Your task to perform on an android device: Go to settings Image 0: 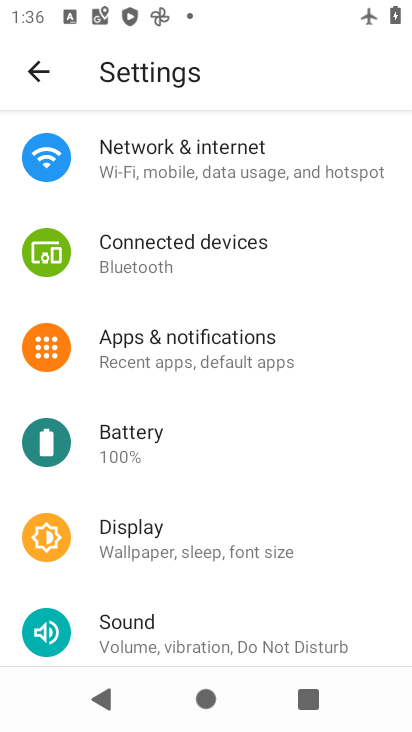
Step 0: drag from (350, 611) to (298, 245)
Your task to perform on an android device: Go to settings Image 1: 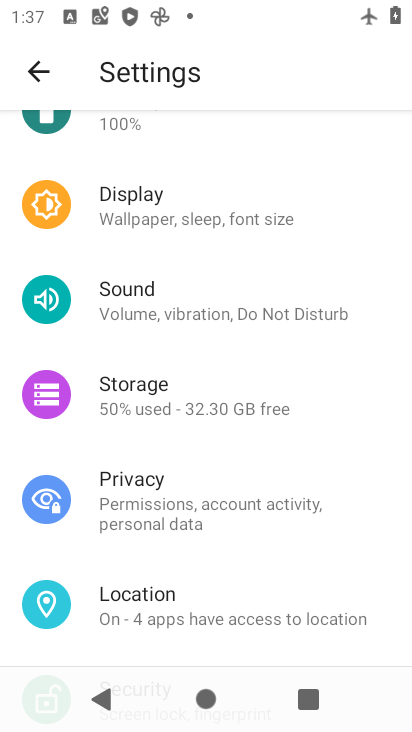
Step 1: task complete